Your task to perform on an android device: remove spam from my inbox in the gmail app Image 0: 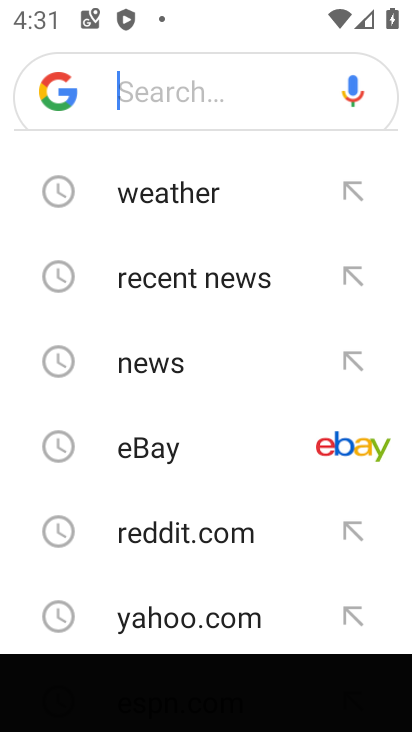
Step 0: drag from (230, 583) to (352, 312)
Your task to perform on an android device: remove spam from my inbox in the gmail app Image 1: 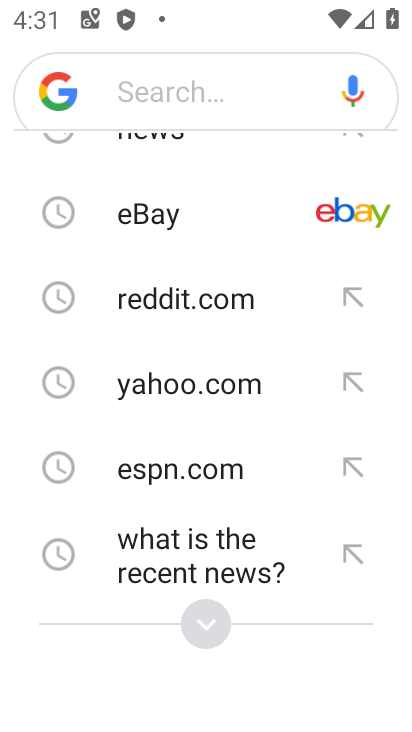
Step 1: press home button
Your task to perform on an android device: remove spam from my inbox in the gmail app Image 2: 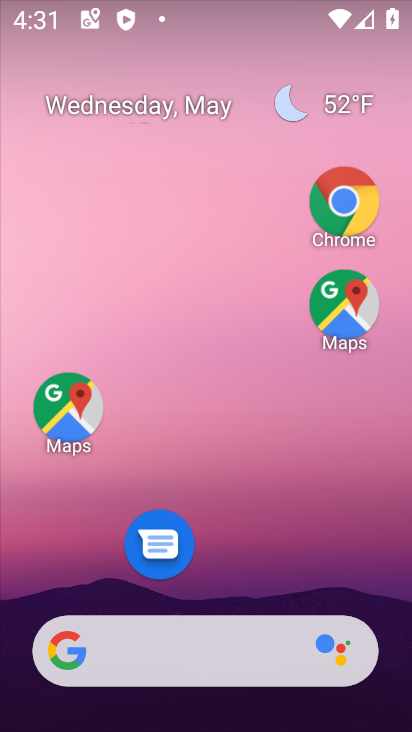
Step 2: drag from (244, 254) to (263, 65)
Your task to perform on an android device: remove spam from my inbox in the gmail app Image 3: 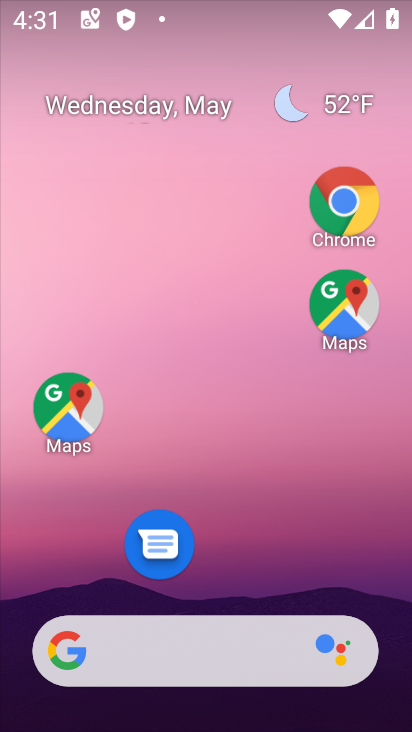
Step 3: drag from (231, 549) to (226, 36)
Your task to perform on an android device: remove spam from my inbox in the gmail app Image 4: 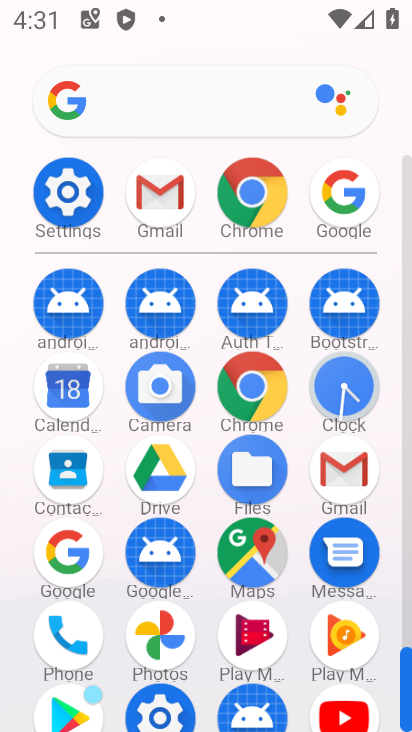
Step 4: click (155, 208)
Your task to perform on an android device: remove spam from my inbox in the gmail app Image 5: 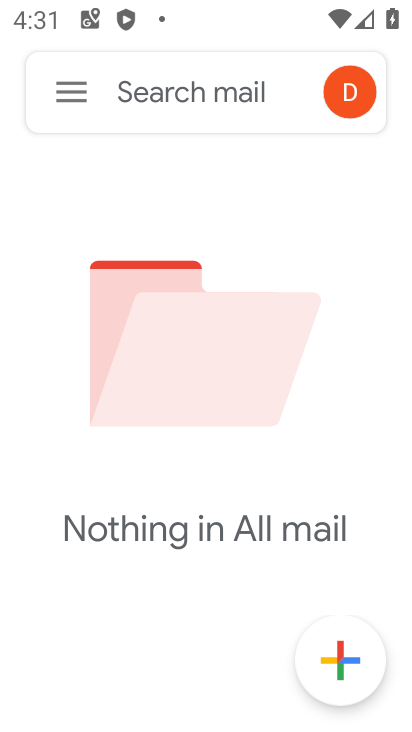
Step 5: click (76, 90)
Your task to perform on an android device: remove spam from my inbox in the gmail app Image 6: 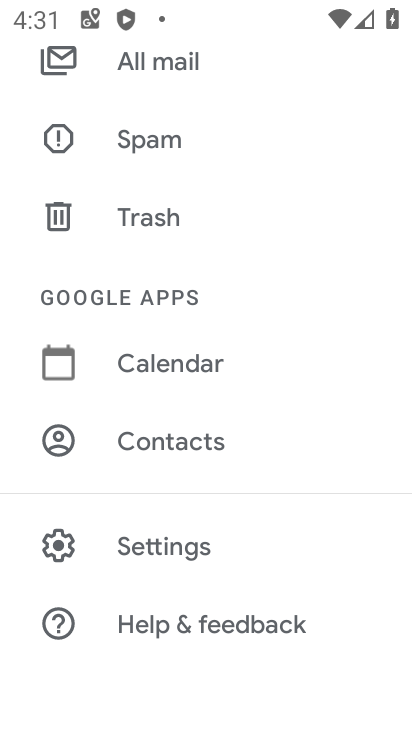
Step 6: click (173, 158)
Your task to perform on an android device: remove spam from my inbox in the gmail app Image 7: 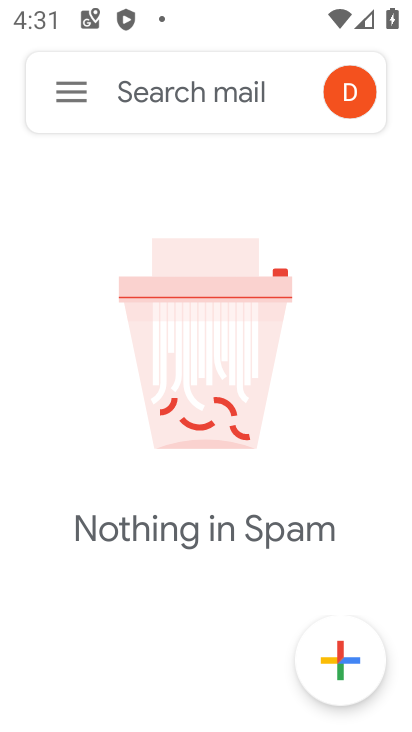
Step 7: task complete